Your task to perform on an android device: change alarm snooze length Image 0: 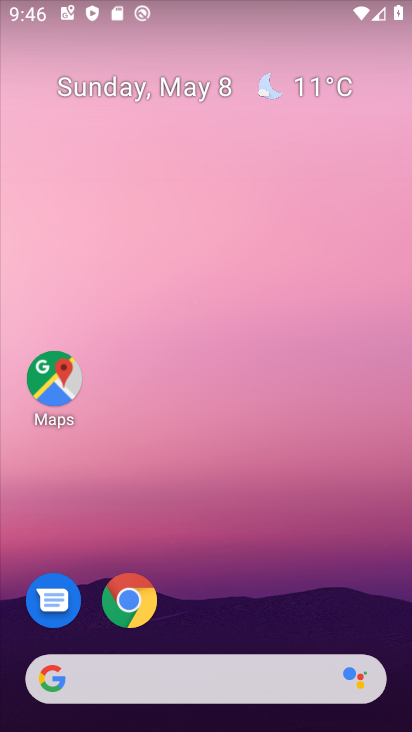
Step 0: drag from (237, 605) to (191, 33)
Your task to perform on an android device: change alarm snooze length Image 1: 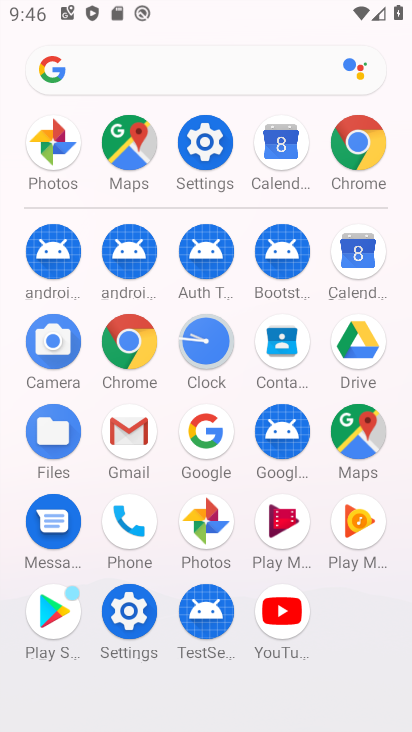
Step 1: drag from (0, 328) to (0, 246)
Your task to perform on an android device: change alarm snooze length Image 2: 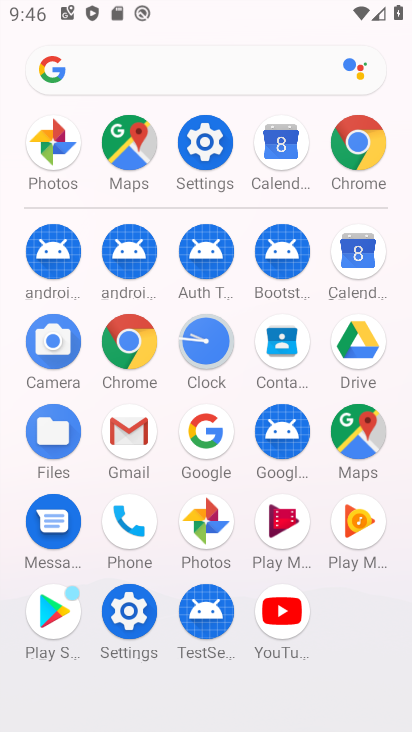
Step 2: click (204, 337)
Your task to perform on an android device: change alarm snooze length Image 3: 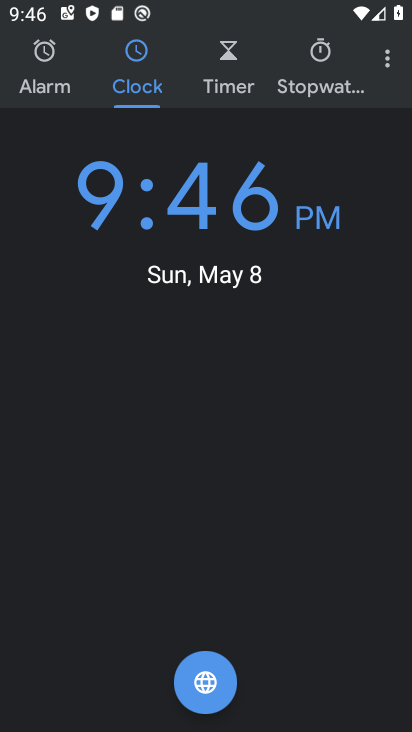
Step 3: drag from (389, 60) to (326, 111)
Your task to perform on an android device: change alarm snooze length Image 4: 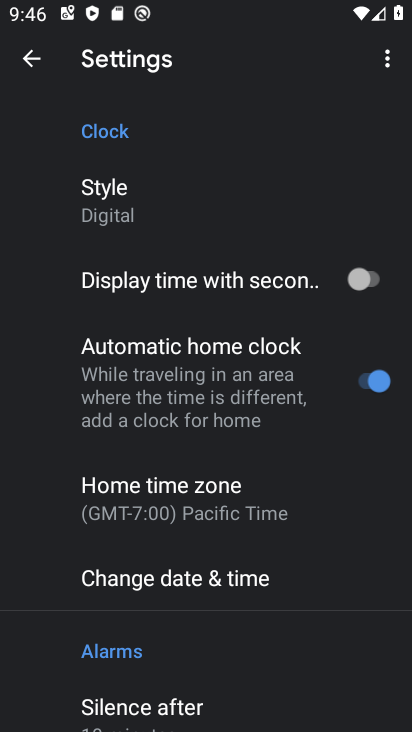
Step 4: drag from (233, 590) to (221, 218)
Your task to perform on an android device: change alarm snooze length Image 5: 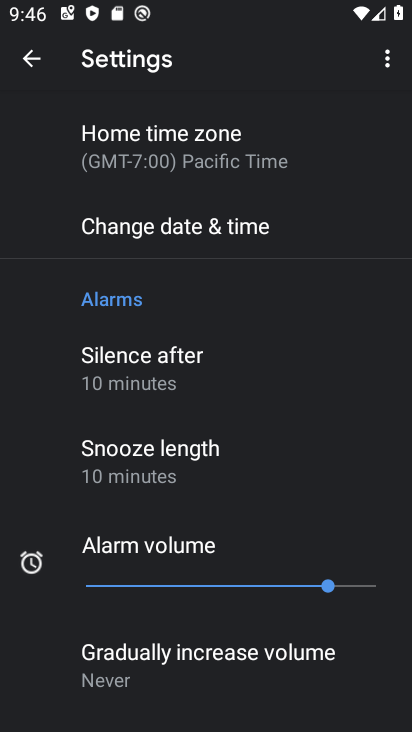
Step 5: click (208, 470)
Your task to perform on an android device: change alarm snooze length Image 6: 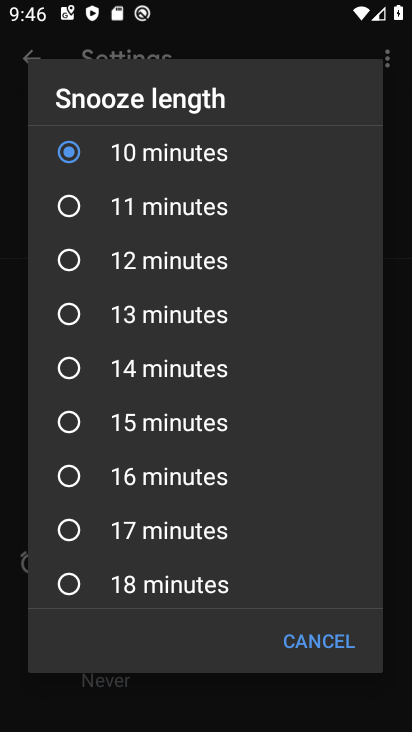
Step 6: click (128, 314)
Your task to perform on an android device: change alarm snooze length Image 7: 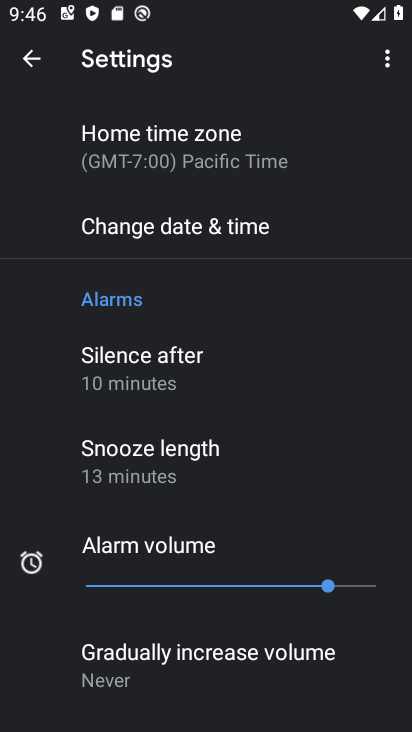
Step 7: task complete